Your task to perform on an android device: add a label to a message in the gmail app Image 0: 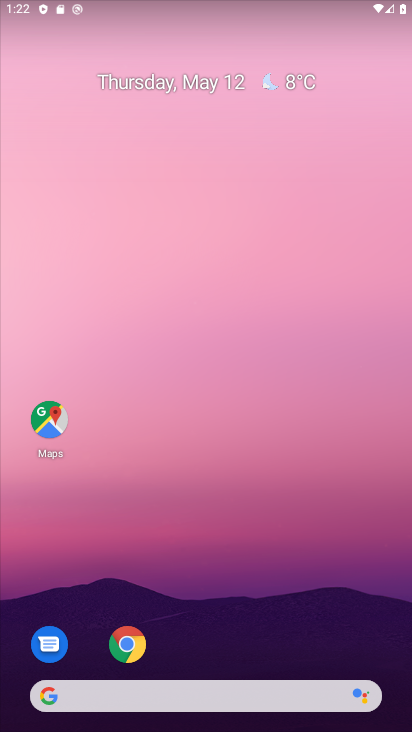
Step 0: drag from (222, 727) to (181, 186)
Your task to perform on an android device: add a label to a message in the gmail app Image 1: 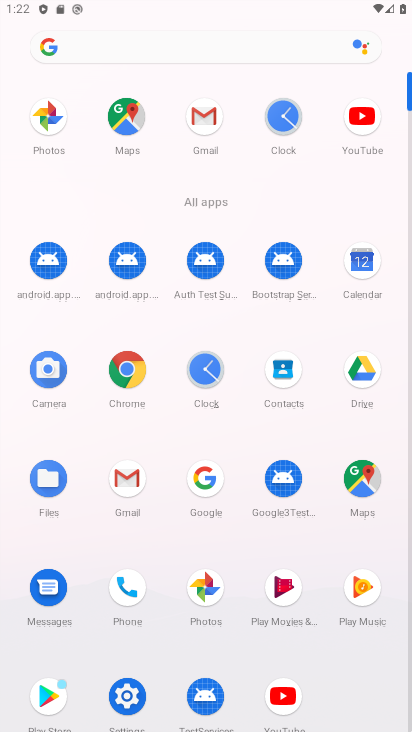
Step 1: click (136, 468)
Your task to perform on an android device: add a label to a message in the gmail app Image 2: 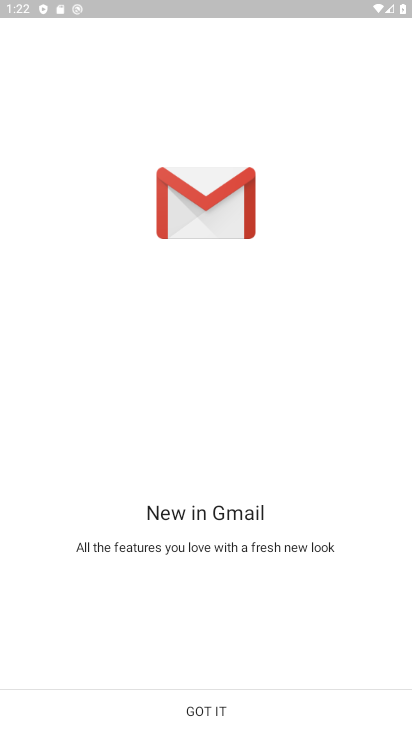
Step 2: click (214, 704)
Your task to perform on an android device: add a label to a message in the gmail app Image 3: 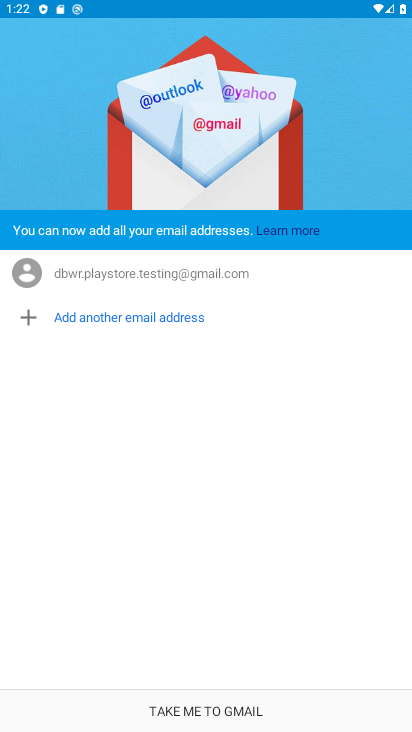
Step 3: click (210, 713)
Your task to perform on an android device: add a label to a message in the gmail app Image 4: 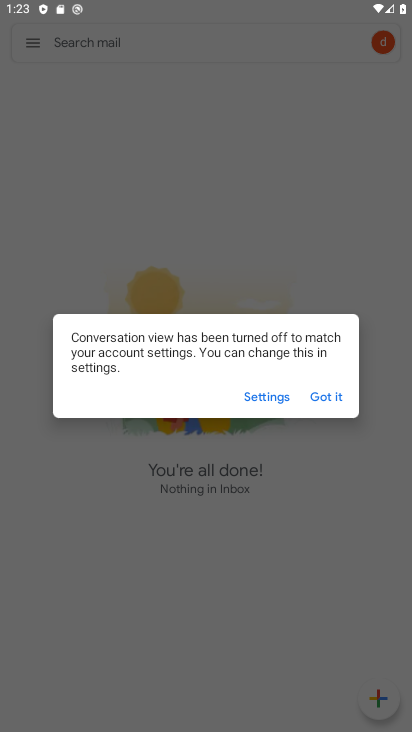
Step 4: click (314, 396)
Your task to perform on an android device: add a label to a message in the gmail app Image 5: 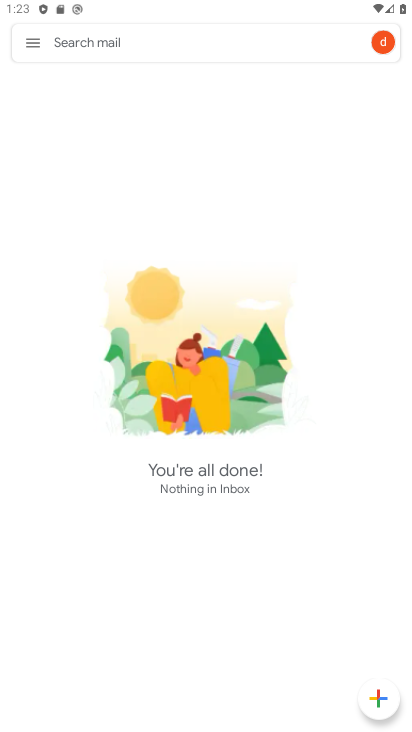
Step 5: task complete